Your task to perform on an android device: toggle airplane mode Image 0: 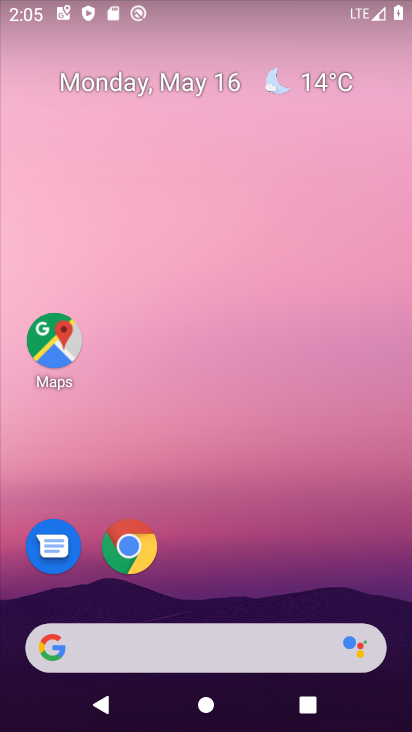
Step 0: drag from (276, 677) to (313, 183)
Your task to perform on an android device: toggle airplane mode Image 1: 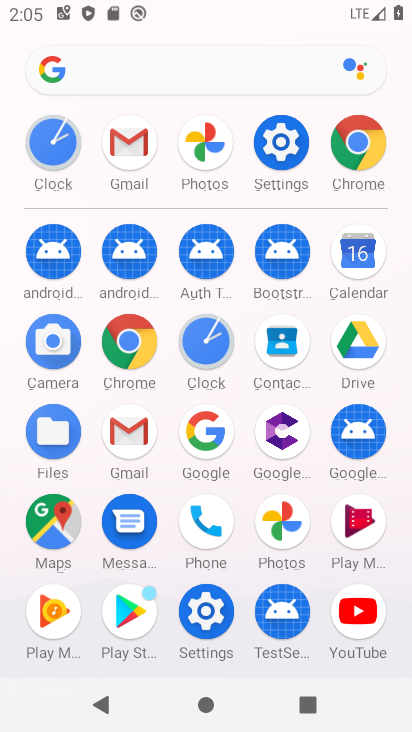
Step 1: click (263, 151)
Your task to perform on an android device: toggle airplane mode Image 2: 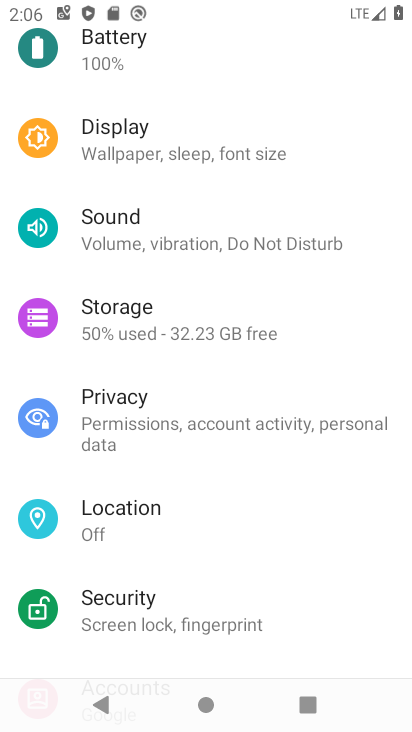
Step 2: drag from (130, 153) to (56, 418)
Your task to perform on an android device: toggle airplane mode Image 3: 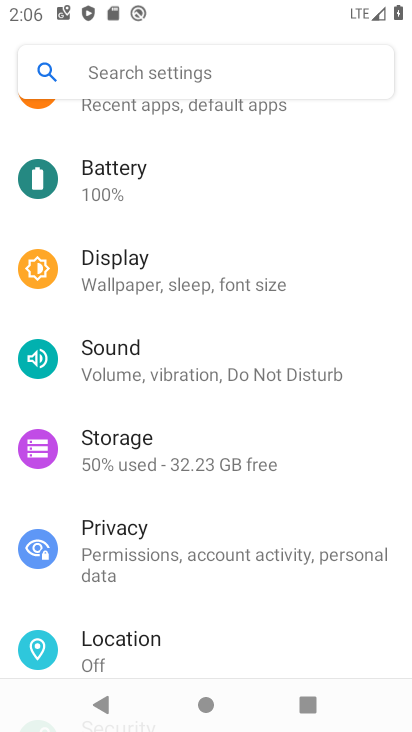
Step 3: drag from (156, 137) to (118, 341)
Your task to perform on an android device: toggle airplane mode Image 4: 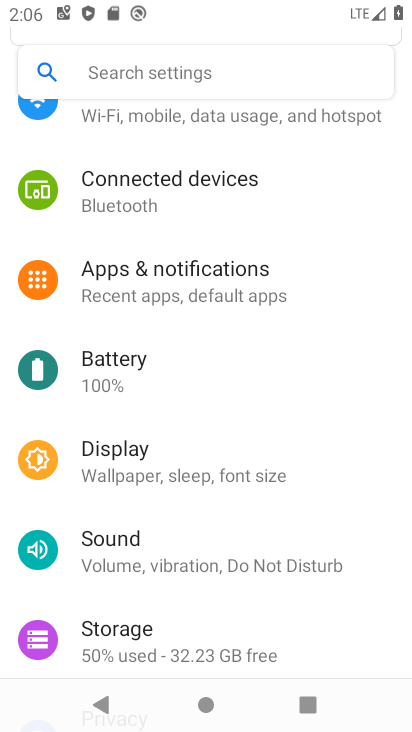
Step 4: drag from (131, 171) to (121, 282)
Your task to perform on an android device: toggle airplane mode Image 5: 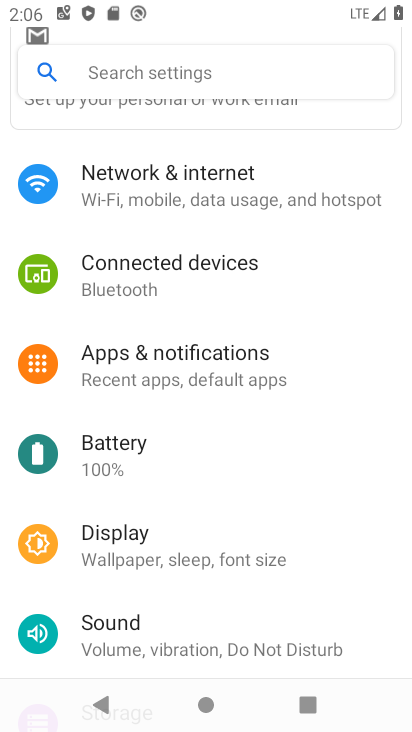
Step 5: click (146, 193)
Your task to perform on an android device: toggle airplane mode Image 6: 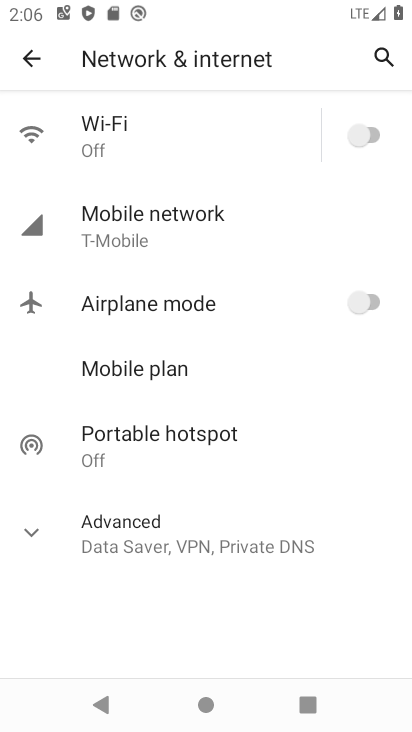
Step 6: task complete